Your task to perform on an android device: Open Reddit.com Image 0: 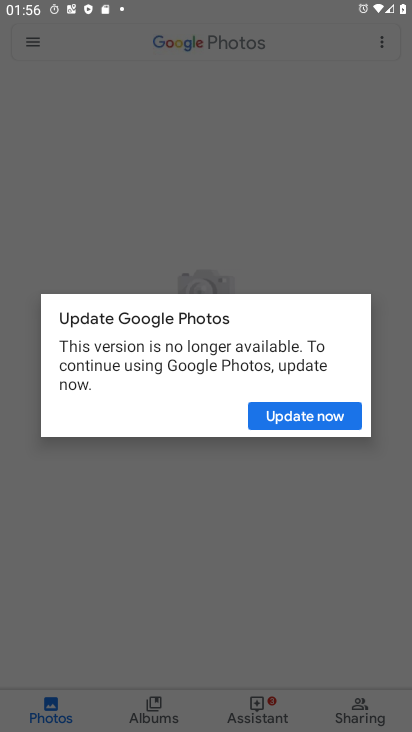
Step 0: press home button
Your task to perform on an android device: Open Reddit.com Image 1: 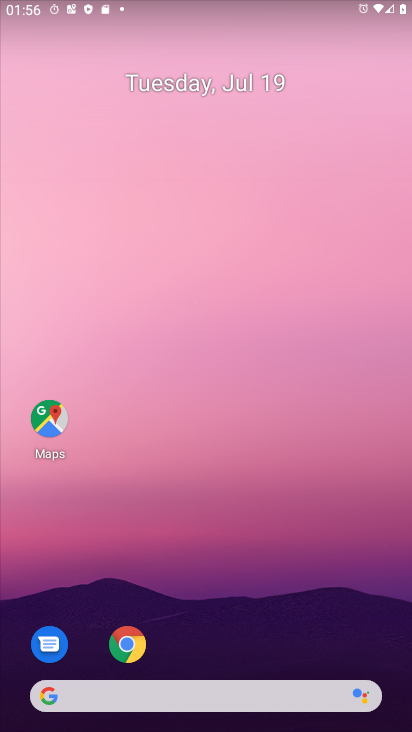
Step 1: drag from (233, 726) to (226, 151)
Your task to perform on an android device: Open Reddit.com Image 2: 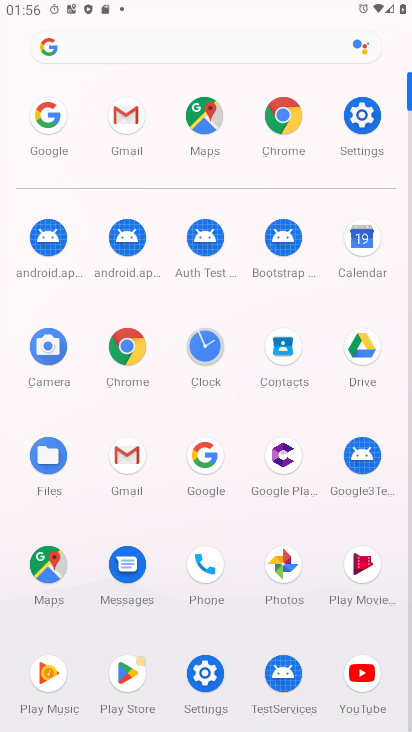
Step 2: click (282, 112)
Your task to perform on an android device: Open Reddit.com Image 3: 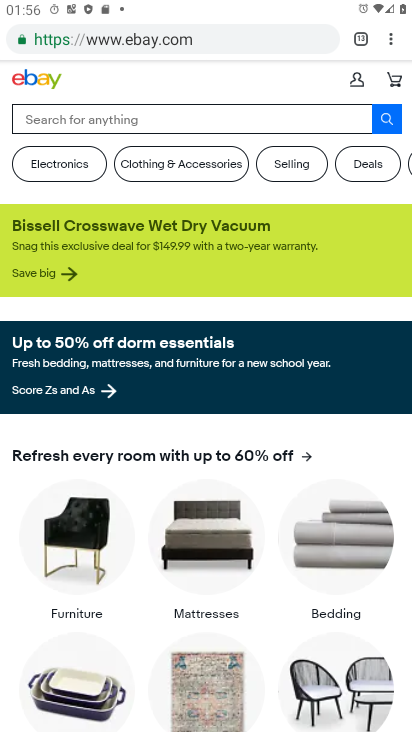
Step 3: click (389, 40)
Your task to perform on an android device: Open Reddit.com Image 4: 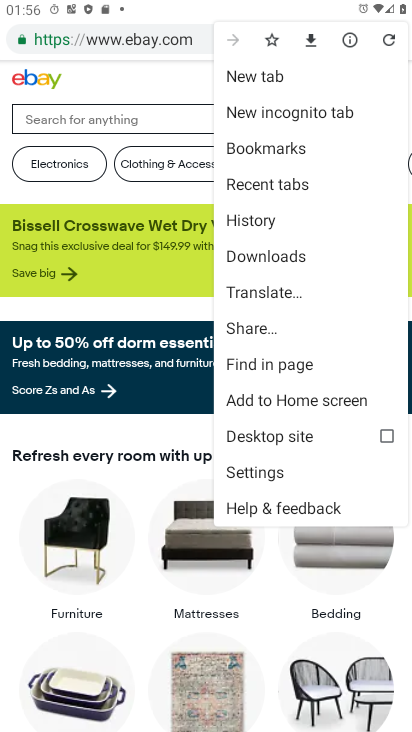
Step 4: click (269, 78)
Your task to perform on an android device: Open Reddit.com Image 5: 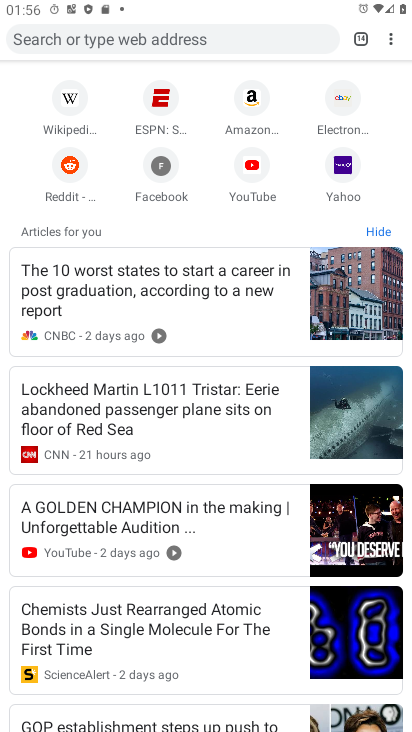
Step 5: click (68, 169)
Your task to perform on an android device: Open Reddit.com Image 6: 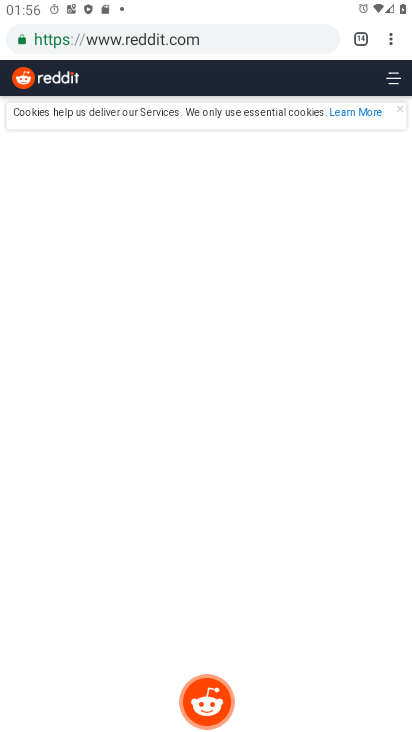
Step 6: task complete